Your task to perform on an android device: Search for vegetarian restaurants on Maps Image 0: 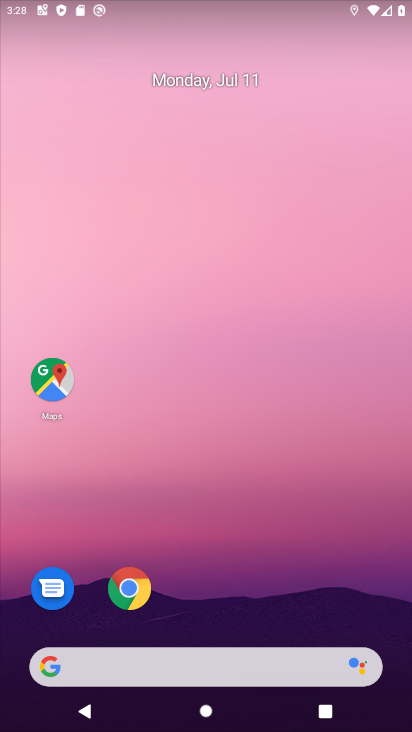
Step 0: click (51, 376)
Your task to perform on an android device: Search for vegetarian restaurants on Maps Image 1: 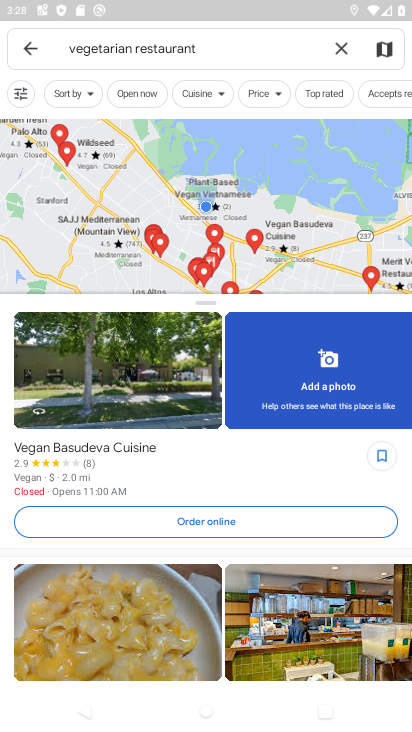
Step 1: task complete